Your task to perform on an android device: Go to privacy settings Image 0: 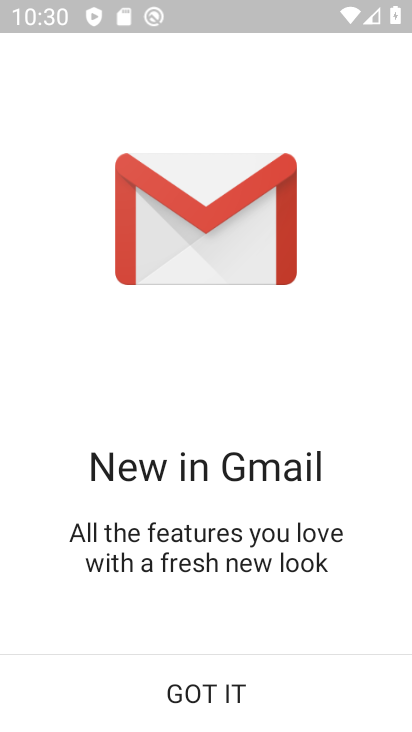
Step 0: press home button
Your task to perform on an android device: Go to privacy settings Image 1: 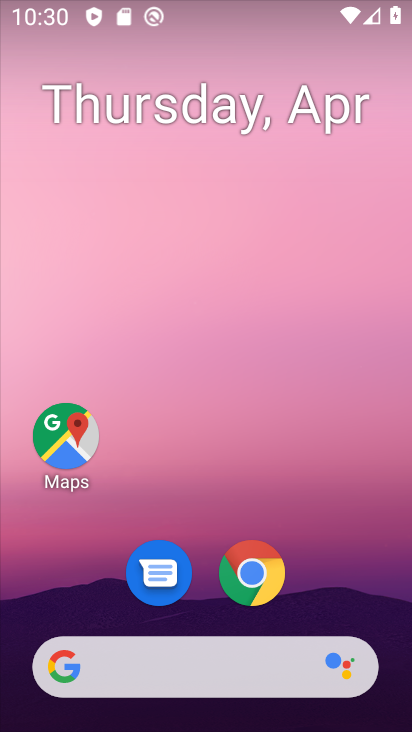
Step 1: drag from (311, 571) to (200, 62)
Your task to perform on an android device: Go to privacy settings Image 2: 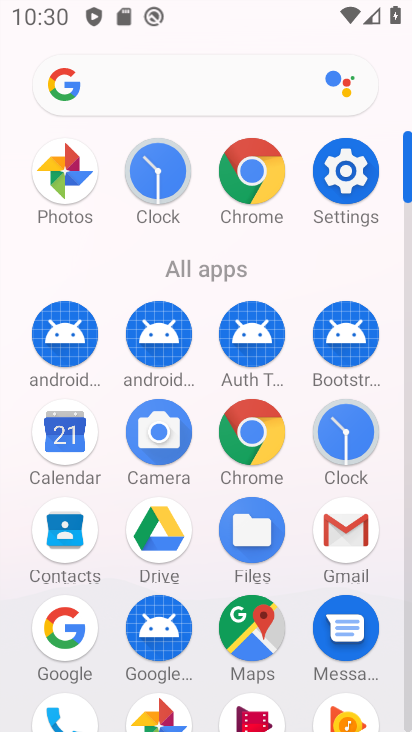
Step 2: click (328, 190)
Your task to perform on an android device: Go to privacy settings Image 3: 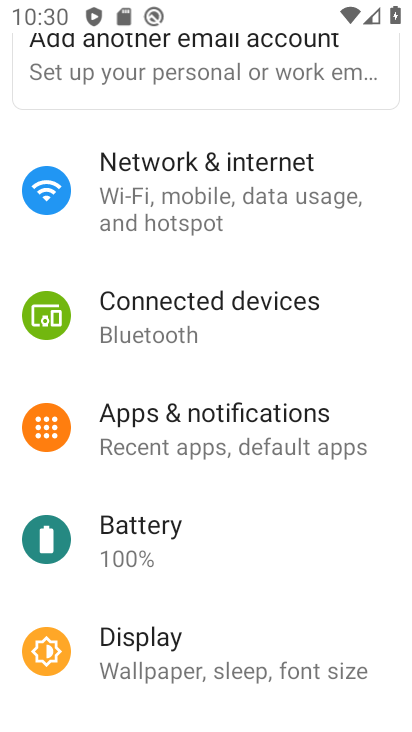
Step 3: drag from (292, 569) to (283, 218)
Your task to perform on an android device: Go to privacy settings Image 4: 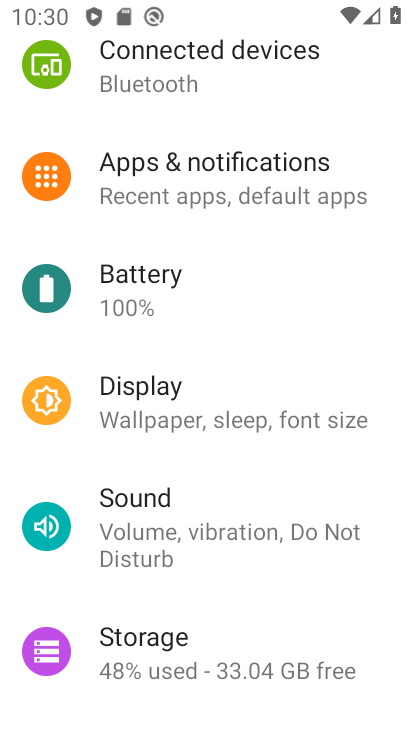
Step 4: drag from (255, 596) to (287, 181)
Your task to perform on an android device: Go to privacy settings Image 5: 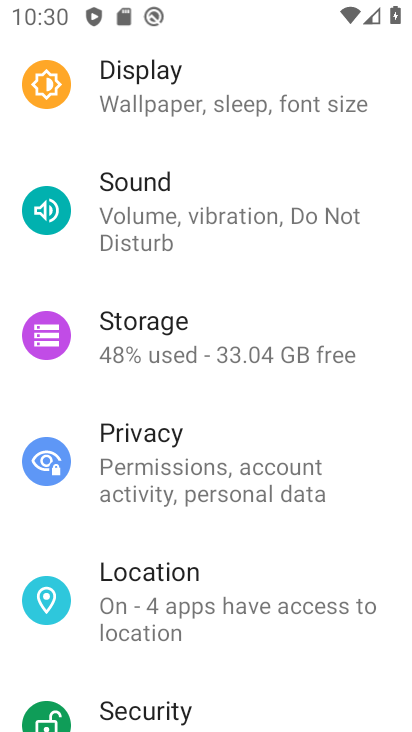
Step 5: click (253, 432)
Your task to perform on an android device: Go to privacy settings Image 6: 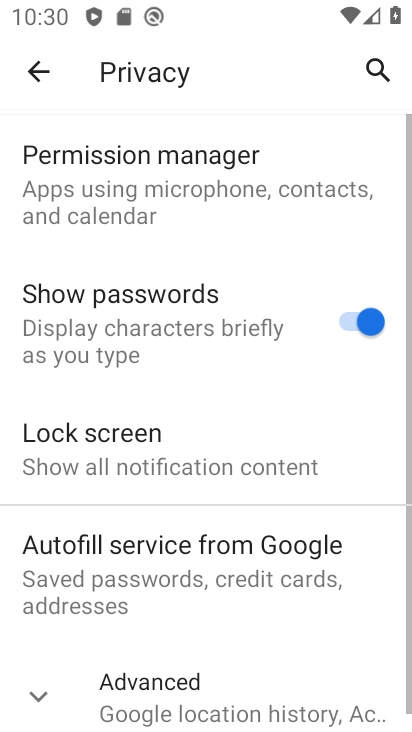
Step 6: task complete